Your task to perform on an android device: turn on location history Image 0: 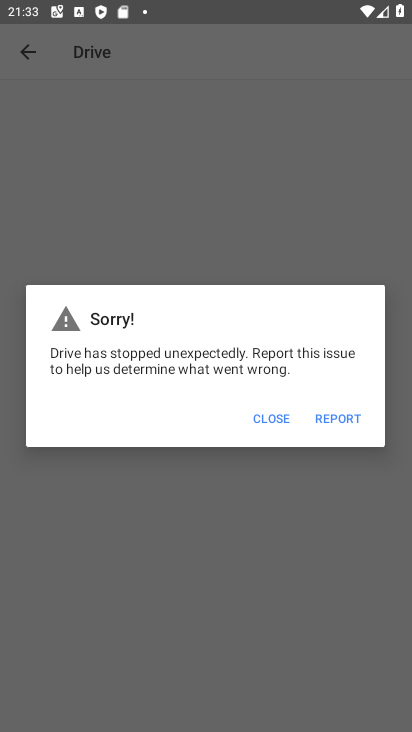
Step 0: press home button
Your task to perform on an android device: turn on location history Image 1: 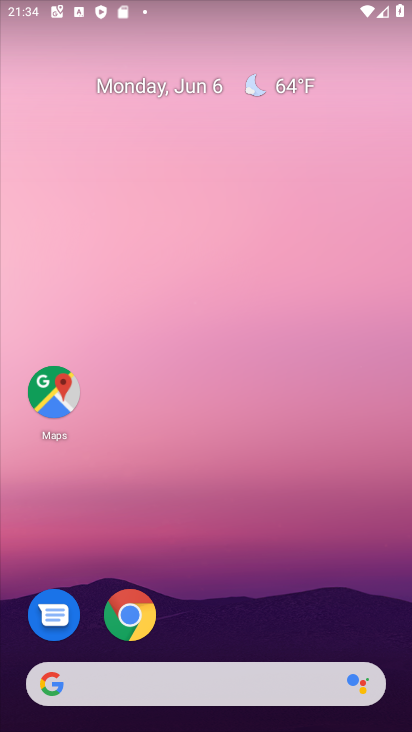
Step 1: drag from (401, 672) to (337, 1)
Your task to perform on an android device: turn on location history Image 2: 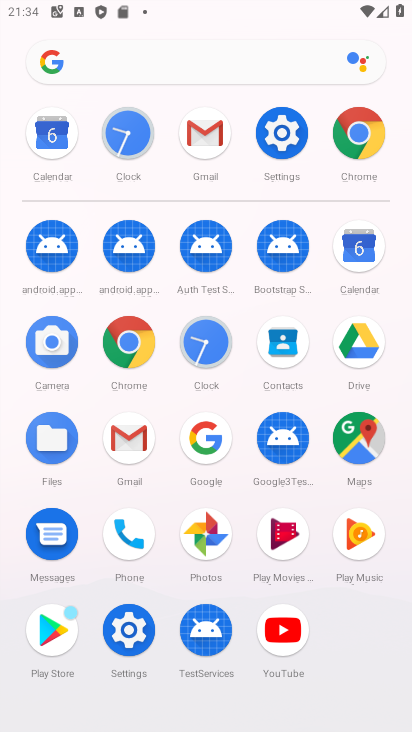
Step 2: click (267, 136)
Your task to perform on an android device: turn on location history Image 3: 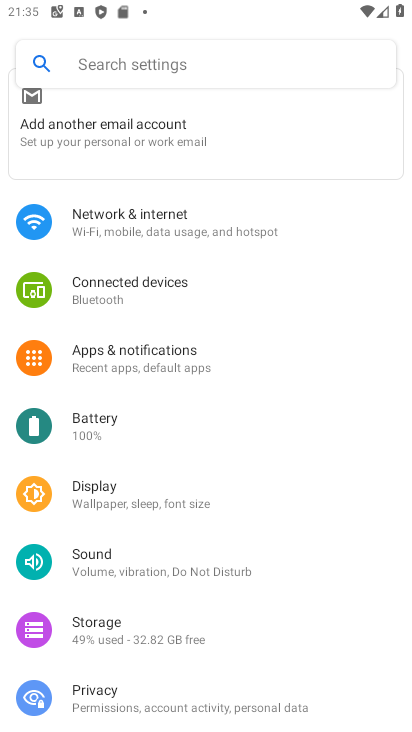
Step 3: drag from (162, 674) to (109, 271)
Your task to perform on an android device: turn on location history Image 4: 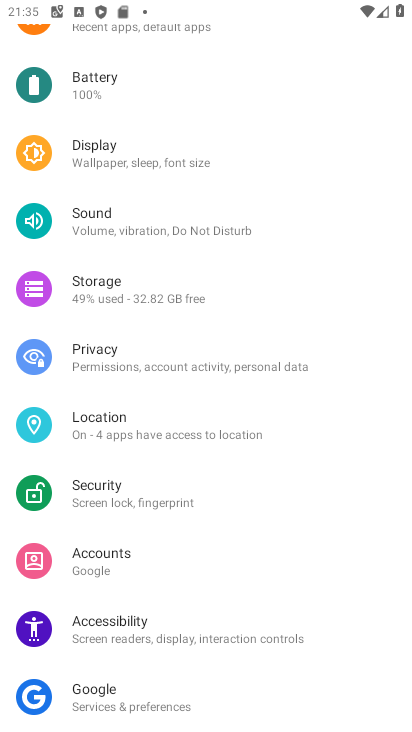
Step 4: click (97, 445)
Your task to perform on an android device: turn on location history Image 5: 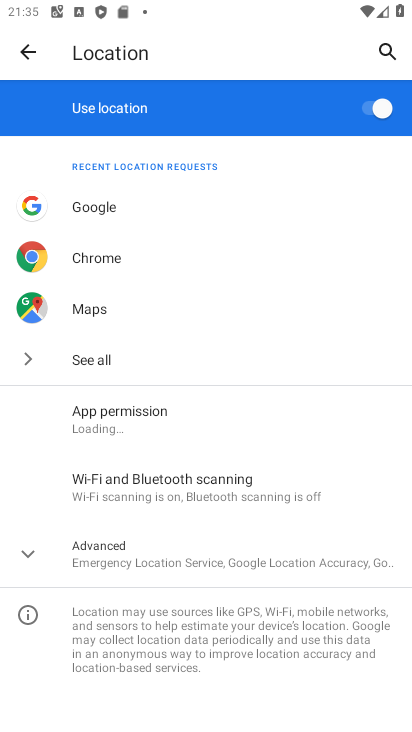
Step 5: click (49, 568)
Your task to perform on an android device: turn on location history Image 6: 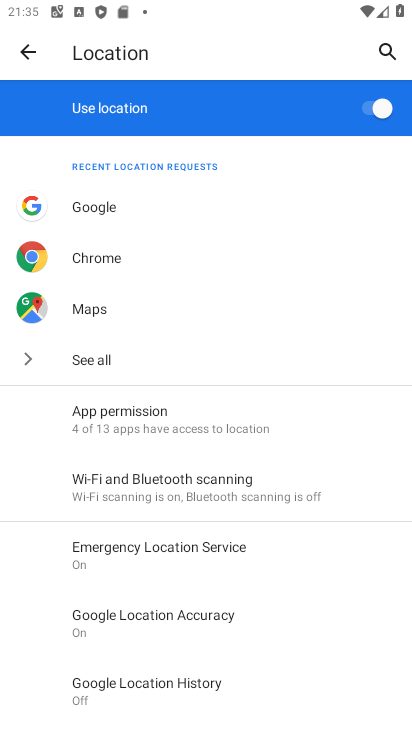
Step 6: click (81, 682)
Your task to perform on an android device: turn on location history Image 7: 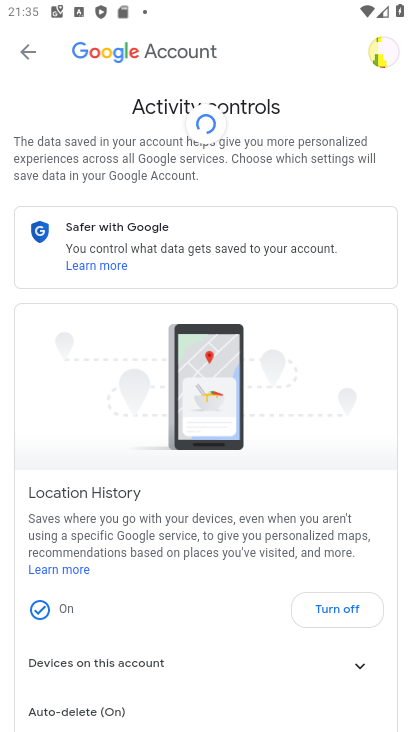
Step 7: drag from (272, 533) to (236, 186)
Your task to perform on an android device: turn on location history Image 8: 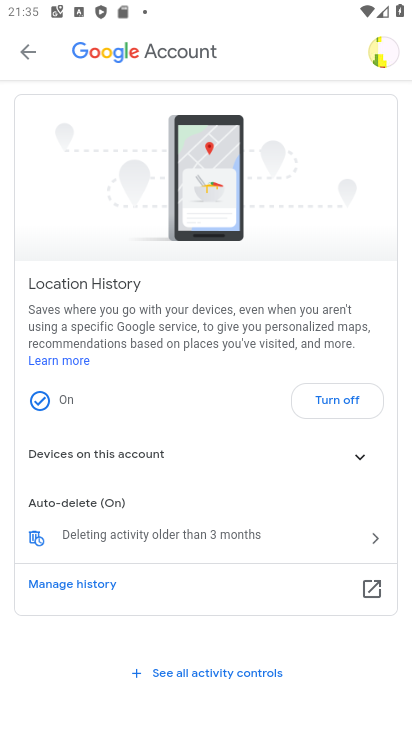
Step 8: drag from (228, 449) to (226, 258)
Your task to perform on an android device: turn on location history Image 9: 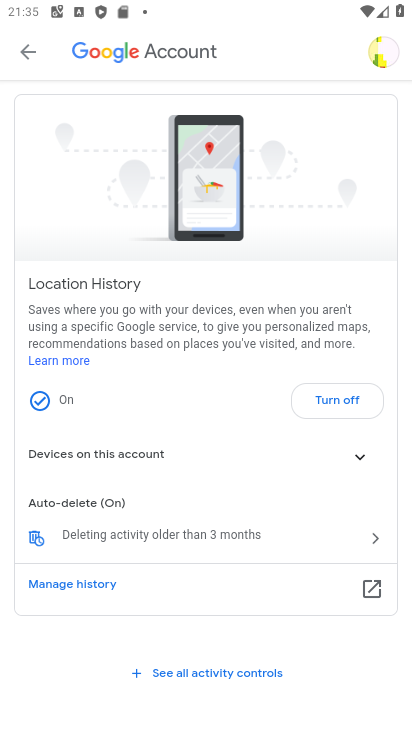
Step 9: click (312, 399)
Your task to perform on an android device: turn on location history Image 10: 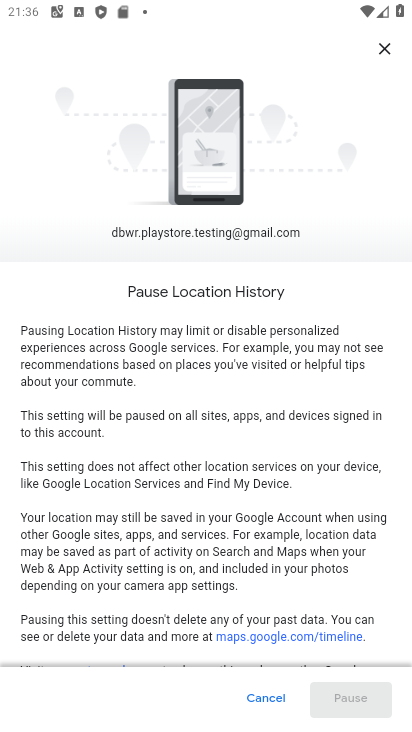
Step 10: drag from (282, 619) to (271, 192)
Your task to perform on an android device: turn on location history Image 11: 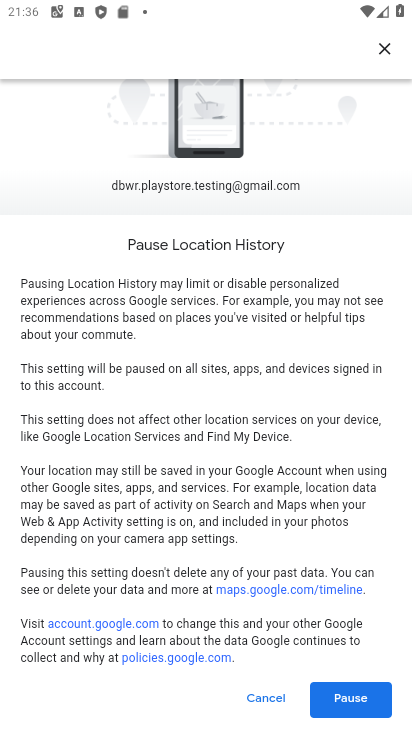
Step 11: click (352, 705)
Your task to perform on an android device: turn on location history Image 12: 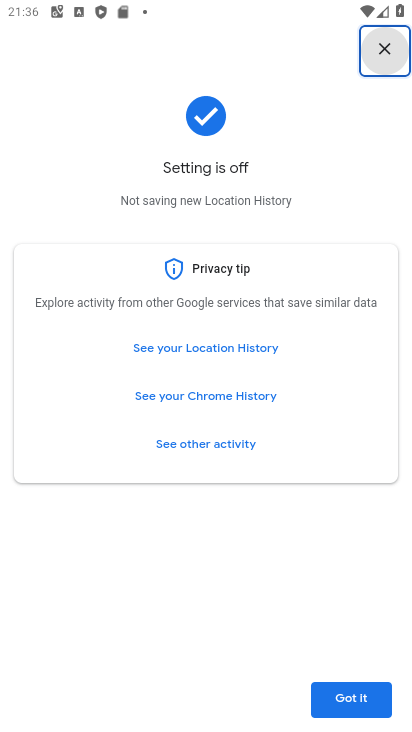
Step 12: click (352, 705)
Your task to perform on an android device: turn on location history Image 13: 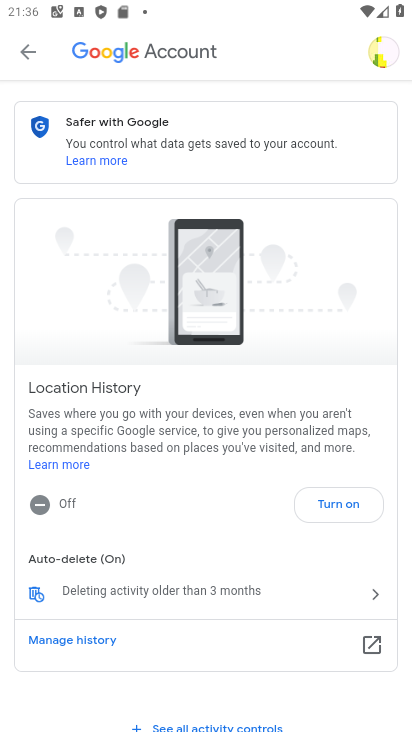
Step 13: click (338, 500)
Your task to perform on an android device: turn on location history Image 14: 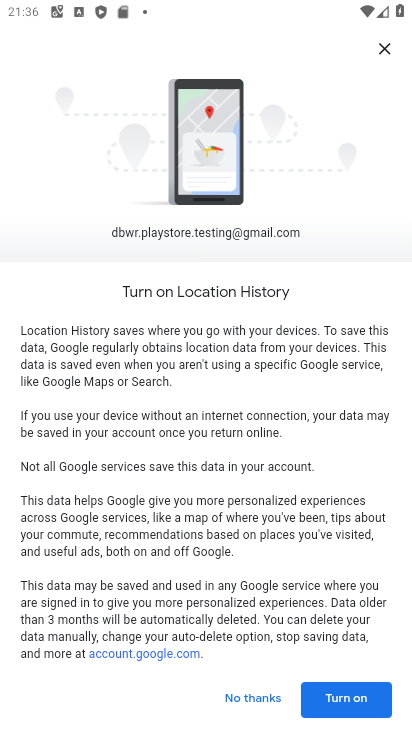
Step 14: click (324, 694)
Your task to perform on an android device: turn on location history Image 15: 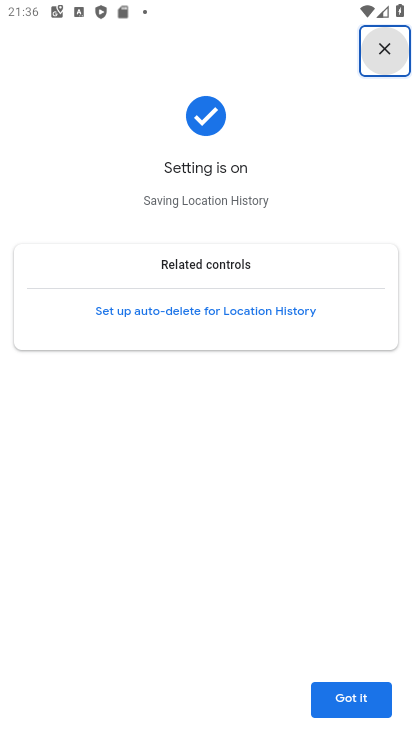
Step 15: click (335, 696)
Your task to perform on an android device: turn on location history Image 16: 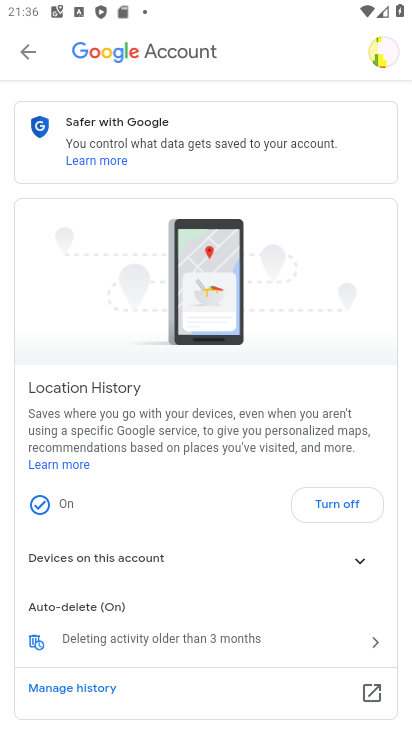
Step 16: click (21, 43)
Your task to perform on an android device: turn on location history Image 17: 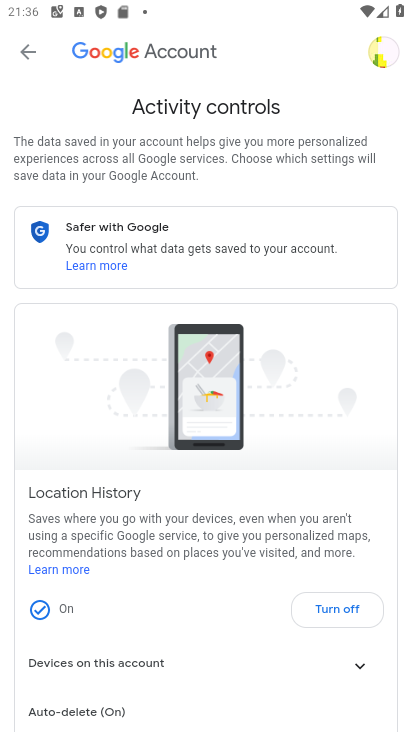
Step 17: click (16, 54)
Your task to perform on an android device: turn on location history Image 18: 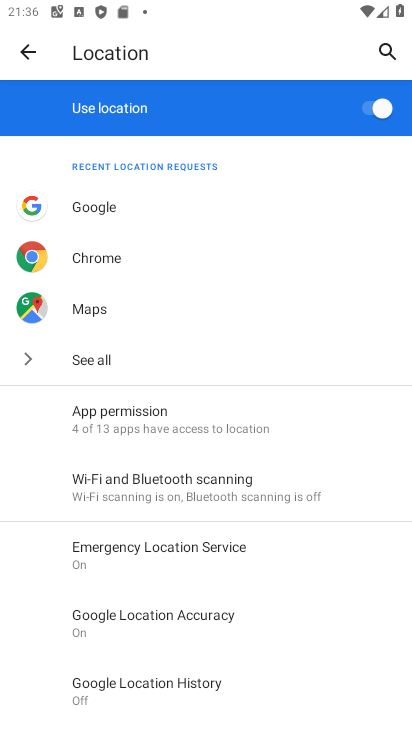
Step 18: task complete